Your task to perform on an android device: turn on sleep mode Image 0: 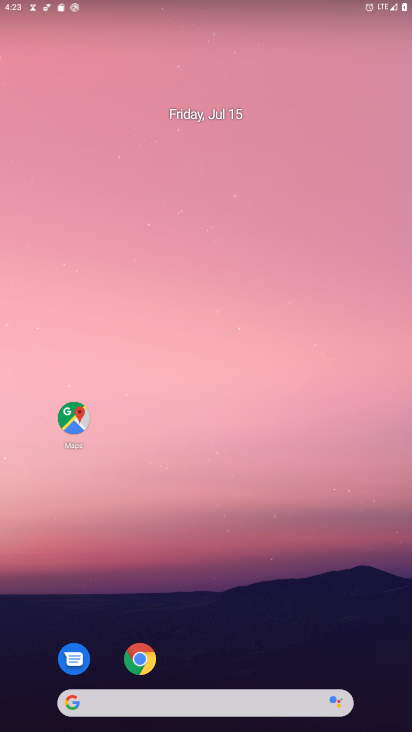
Step 0: drag from (242, 682) to (265, 25)
Your task to perform on an android device: turn on sleep mode Image 1: 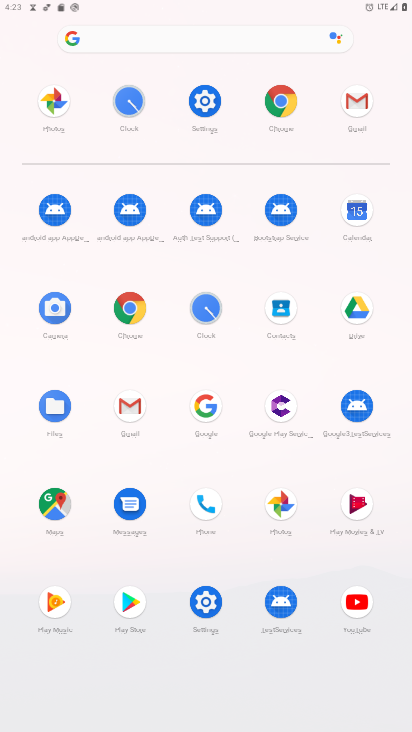
Step 1: click (210, 91)
Your task to perform on an android device: turn on sleep mode Image 2: 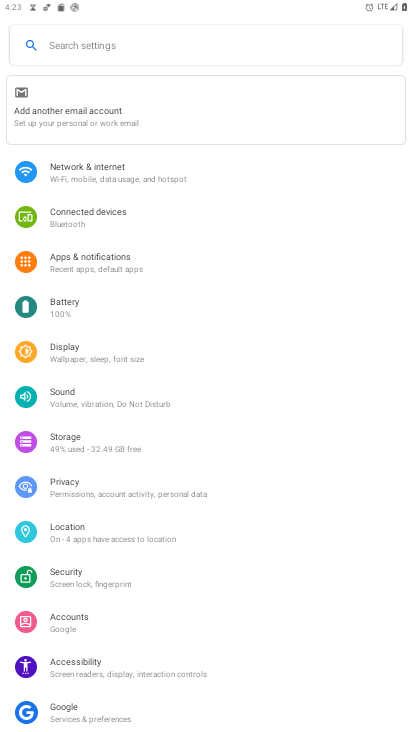
Step 2: click (139, 358)
Your task to perform on an android device: turn on sleep mode Image 3: 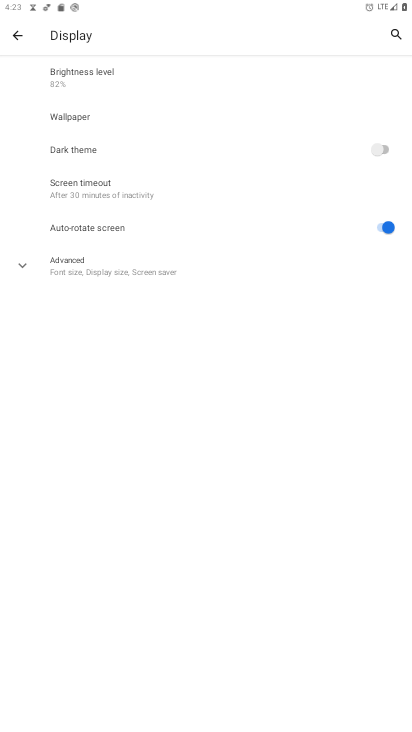
Step 3: task complete